Your task to perform on an android device: delete a single message in the gmail app Image 0: 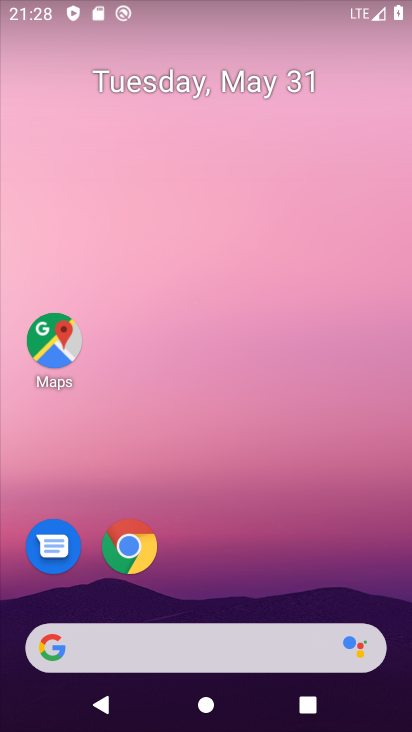
Step 0: drag from (394, 677) to (361, 162)
Your task to perform on an android device: delete a single message in the gmail app Image 1: 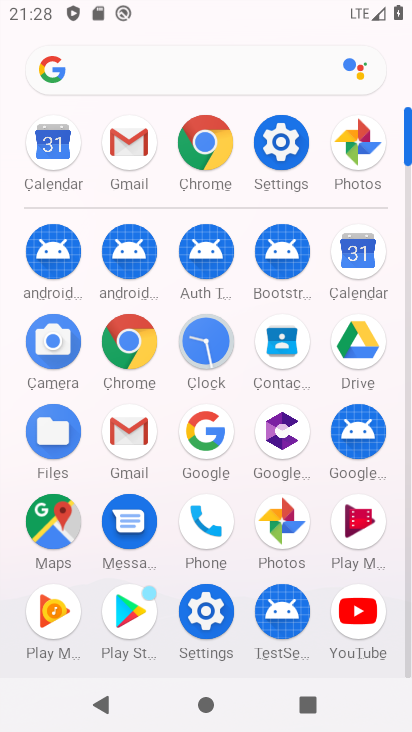
Step 1: click (134, 143)
Your task to perform on an android device: delete a single message in the gmail app Image 2: 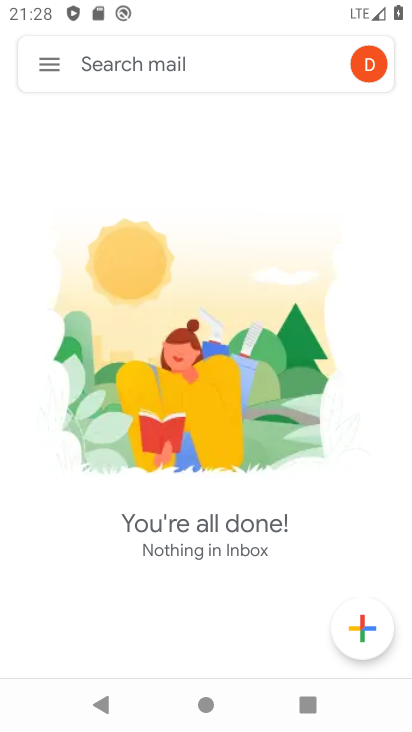
Step 2: click (36, 62)
Your task to perform on an android device: delete a single message in the gmail app Image 3: 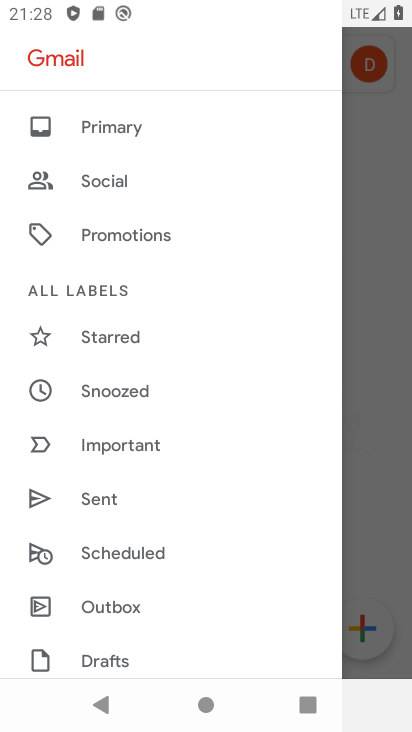
Step 3: click (97, 122)
Your task to perform on an android device: delete a single message in the gmail app Image 4: 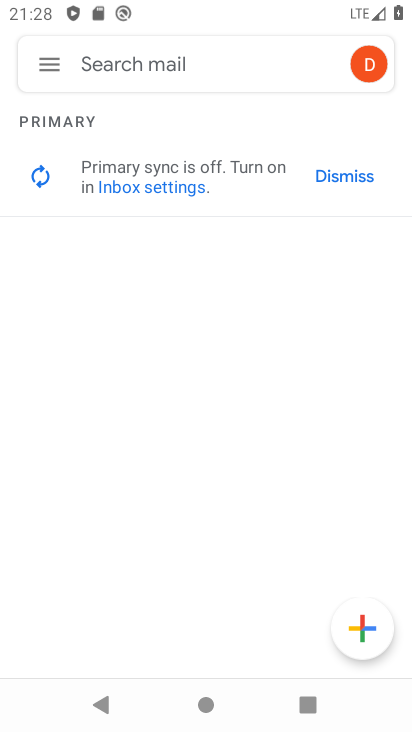
Step 4: task complete